Your task to perform on an android device: Is it going to rain tomorrow? Image 0: 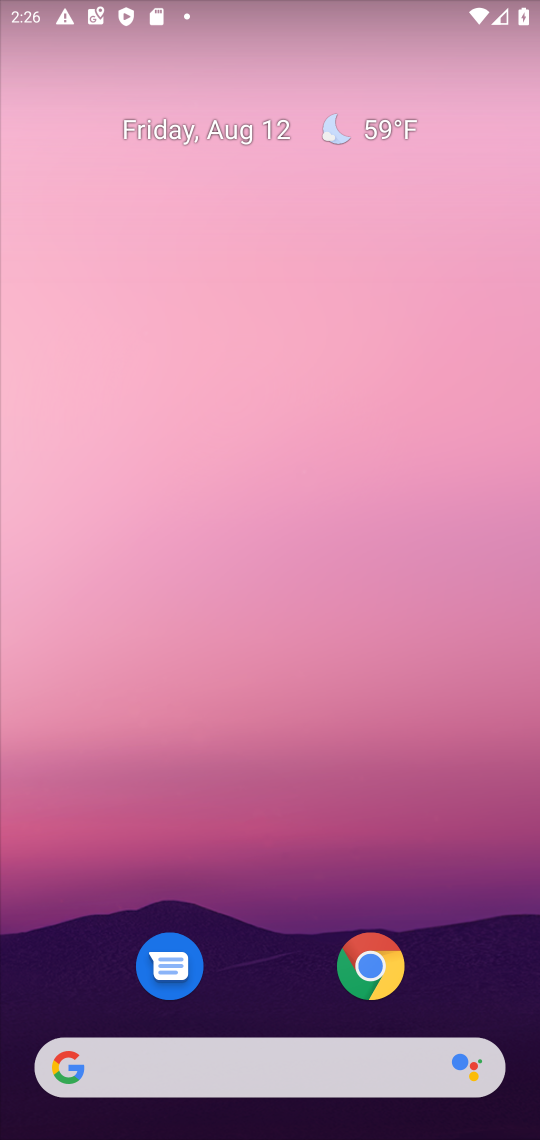
Step 0: click (399, 127)
Your task to perform on an android device: Is it going to rain tomorrow? Image 1: 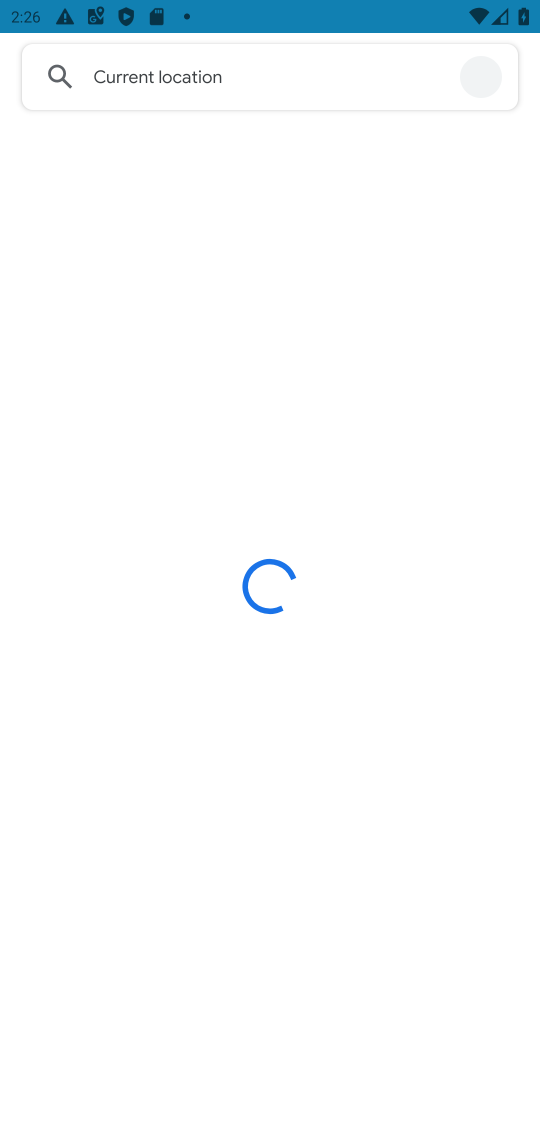
Step 1: click (389, 125)
Your task to perform on an android device: Is it going to rain tomorrow? Image 2: 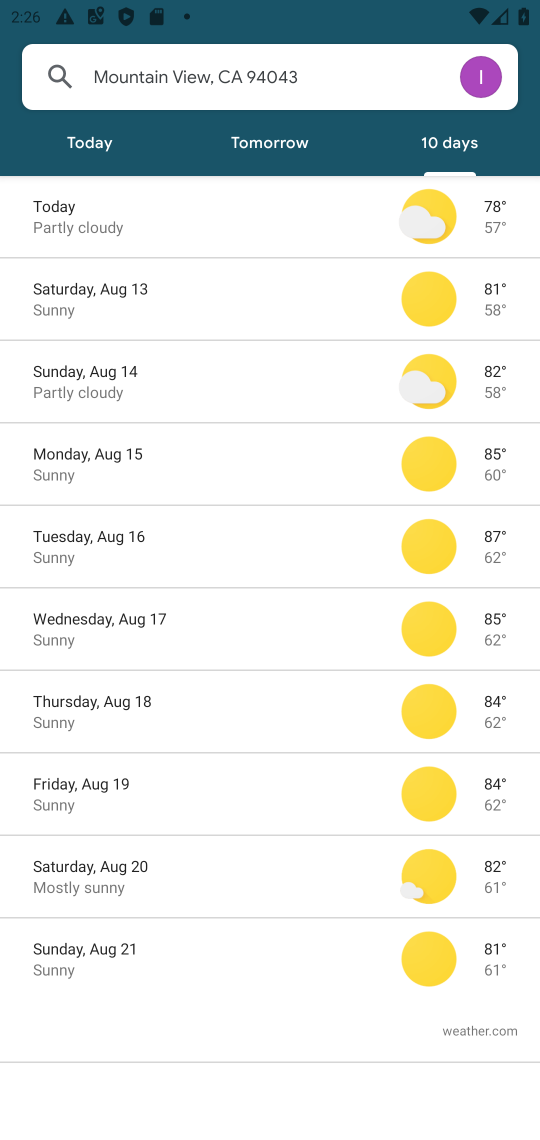
Step 2: click (255, 146)
Your task to perform on an android device: Is it going to rain tomorrow? Image 3: 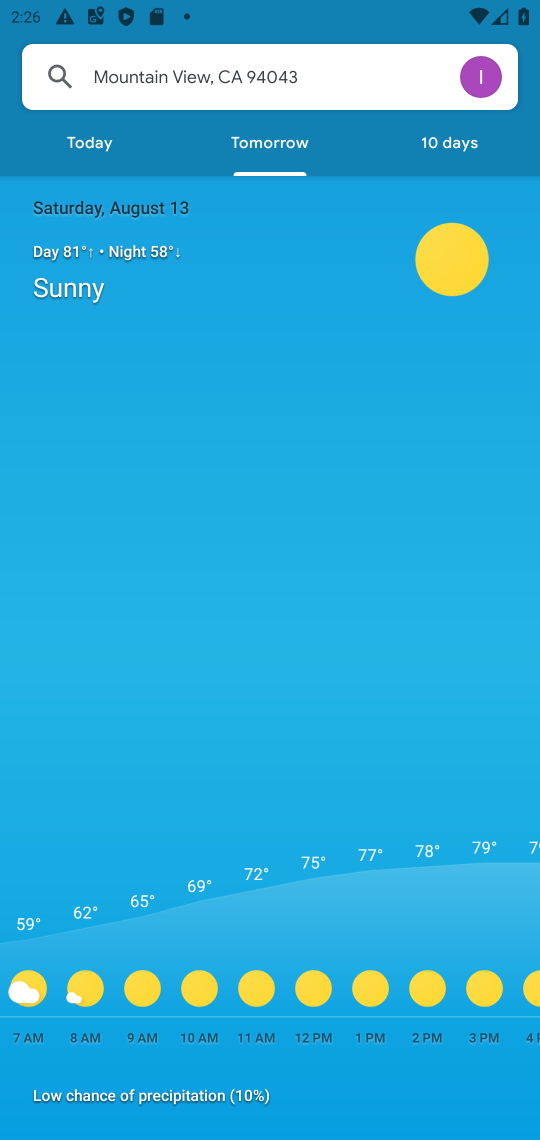
Step 3: task complete